Your task to perform on an android device: Add usb-c to usb-b to the cart on amazon, then select checkout. Image 0: 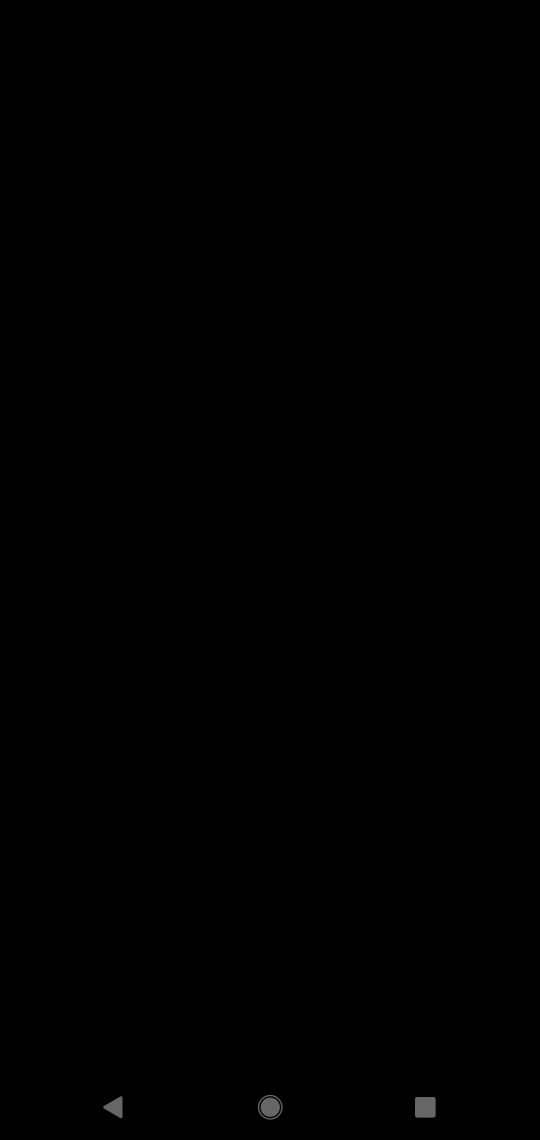
Step 0: press home button
Your task to perform on an android device: Add usb-c to usb-b to the cart on amazon, then select checkout. Image 1: 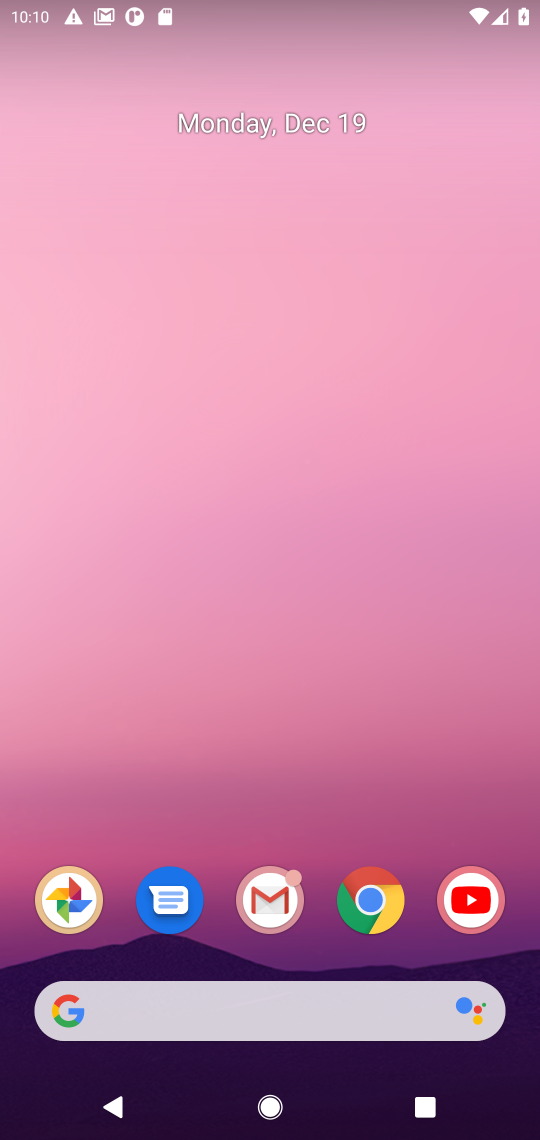
Step 1: click (367, 902)
Your task to perform on an android device: Add usb-c to usb-b to the cart on amazon, then select checkout. Image 2: 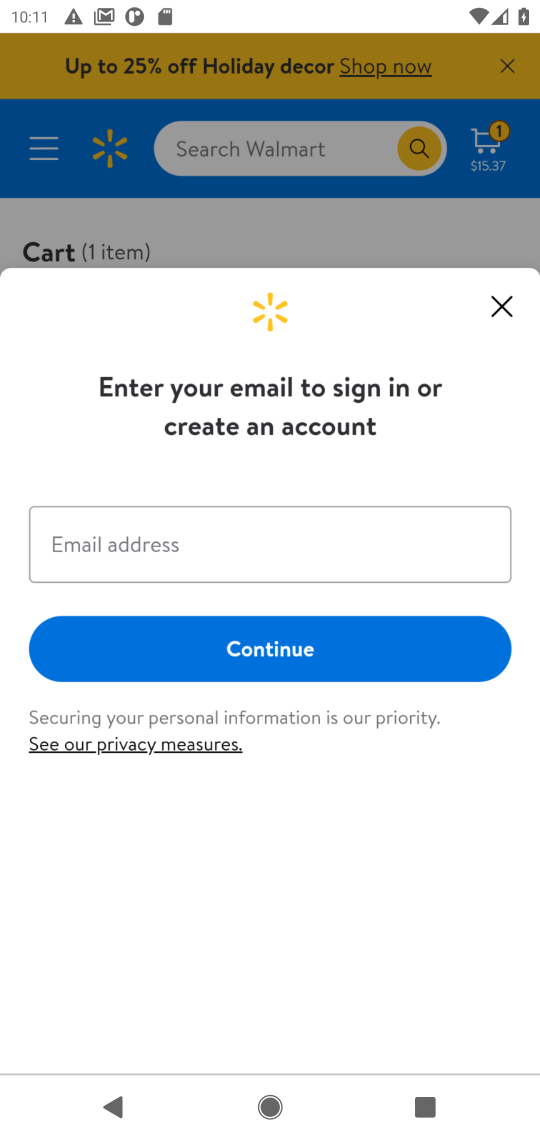
Step 2: click (495, 303)
Your task to perform on an android device: Add usb-c to usb-b to the cart on amazon, then select checkout. Image 3: 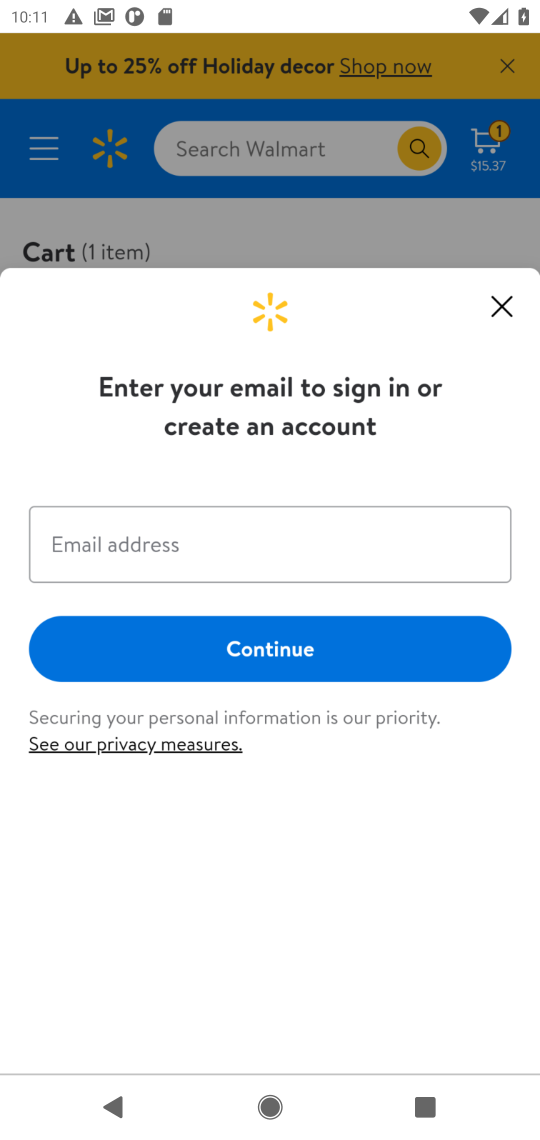
Step 3: click (493, 305)
Your task to perform on an android device: Add usb-c to usb-b to the cart on amazon, then select checkout. Image 4: 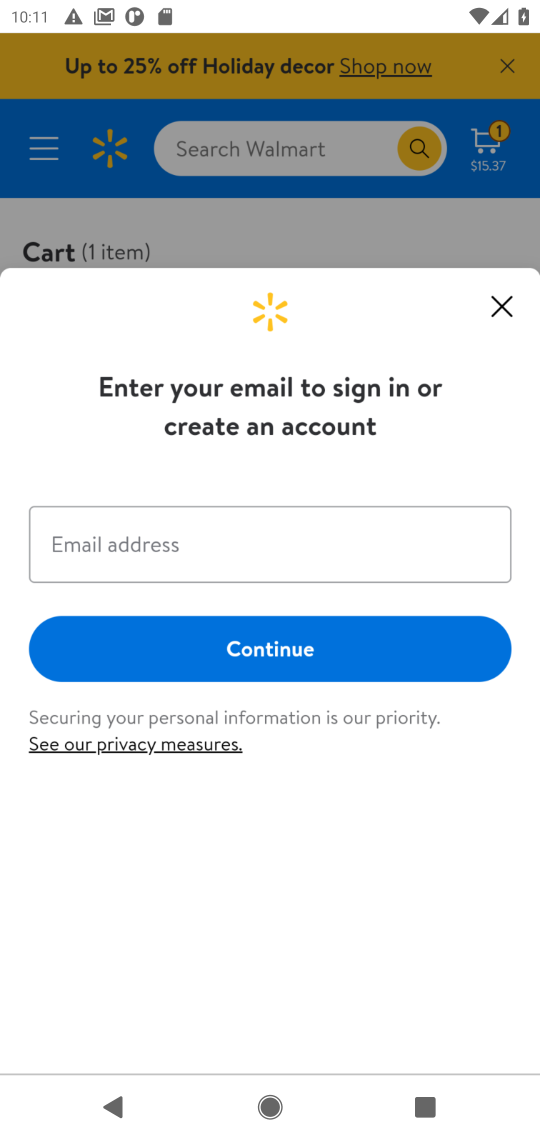
Step 4: click (504, 311)
Your task to perform on an android device: Add usb-c to usb-b to the cart on amazon, then select checkout. Image 5: 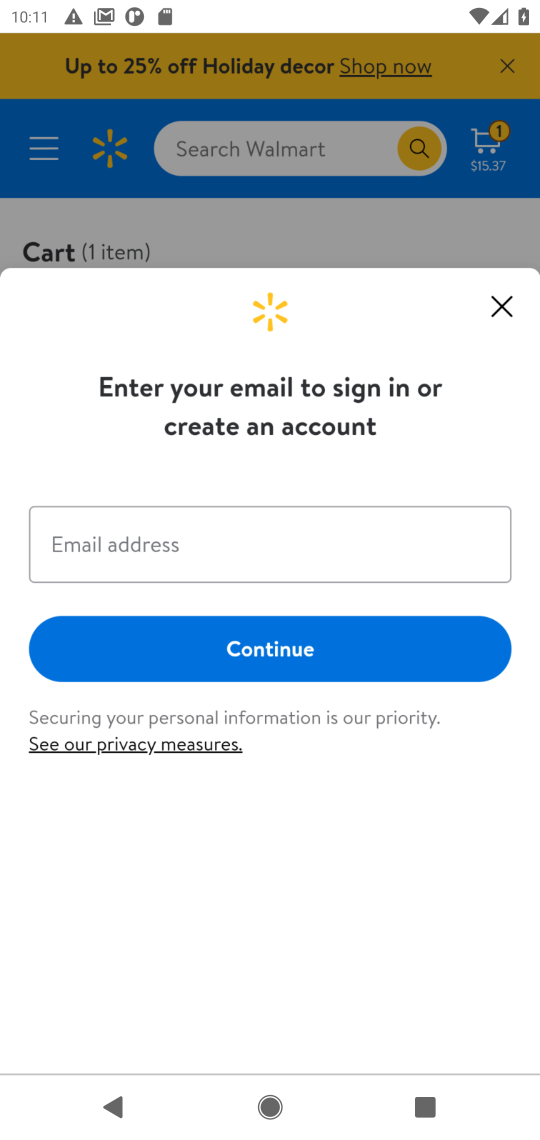
Step 5: click (504, 311)
Your task to perform on an android device: Add usb-c to usb-b to the cart on amazon, then select checkout. Image 6: 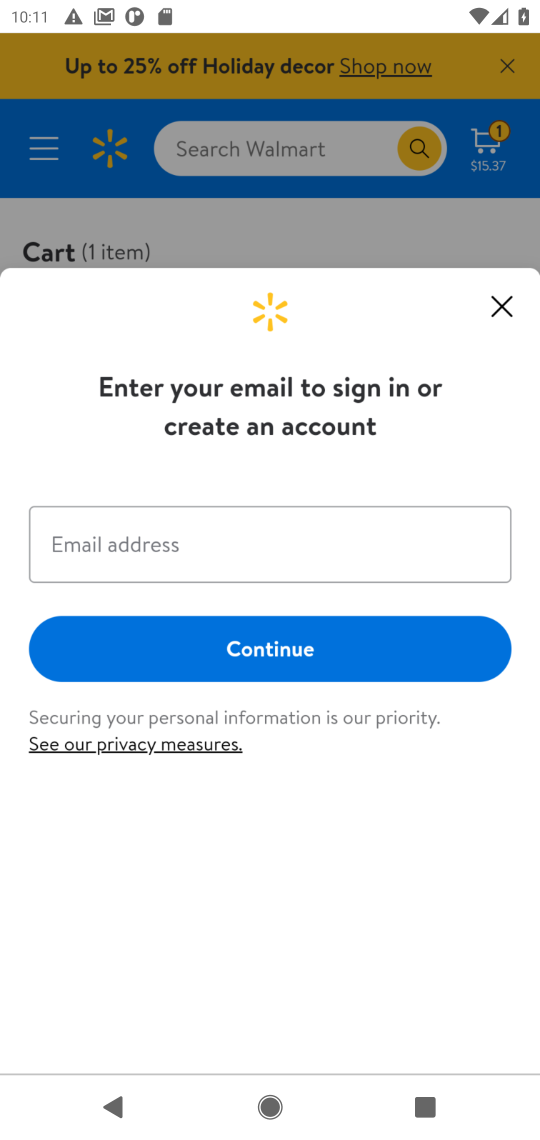
Step 6: click (504, 311)
Your task to perform on an android device: Add usb-c to usb-b to the cart on amazon, then select checkout. Image 7: 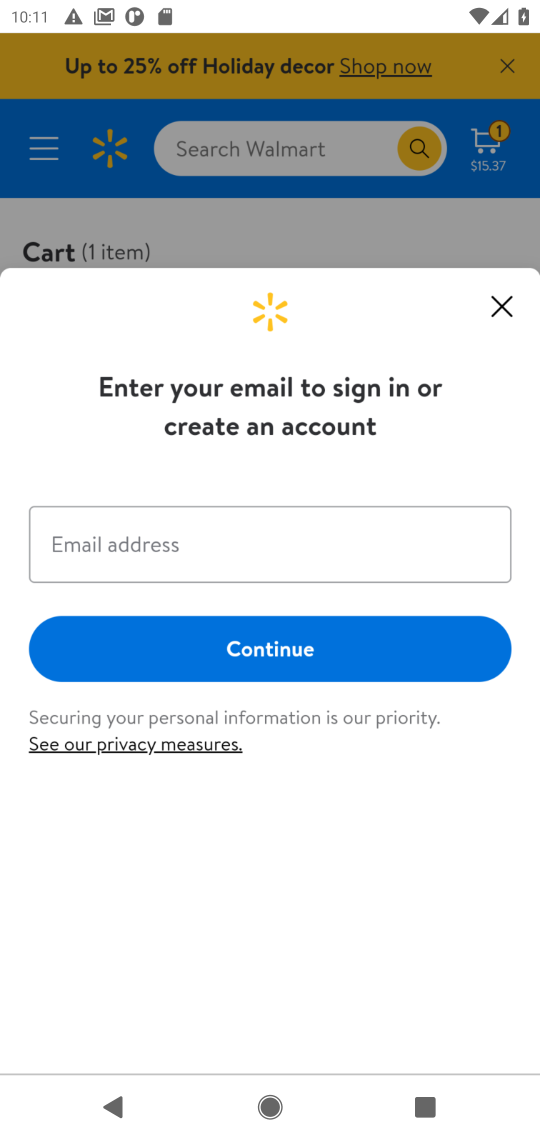
Step 7: click (495, 311)
Your task to perform on an android device: Add usb-c to usb-b to the cart on amazon, then select checkout. Image 8: 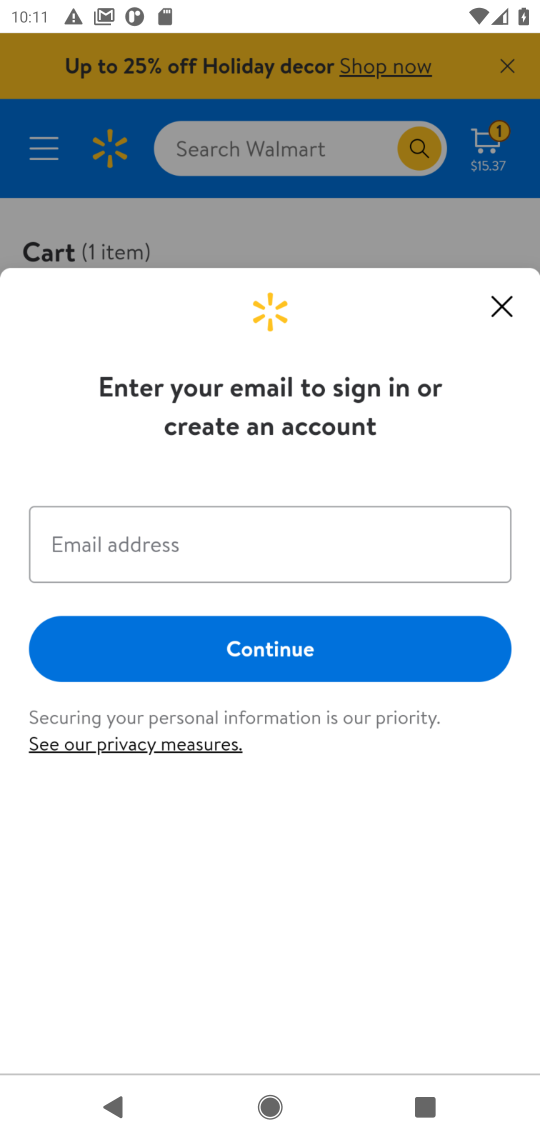
Step 8: click (501, 300)
Your task to perform on an android device: Add usb-c to usb-b to the cart on amazon, then select checkout. Image 9: 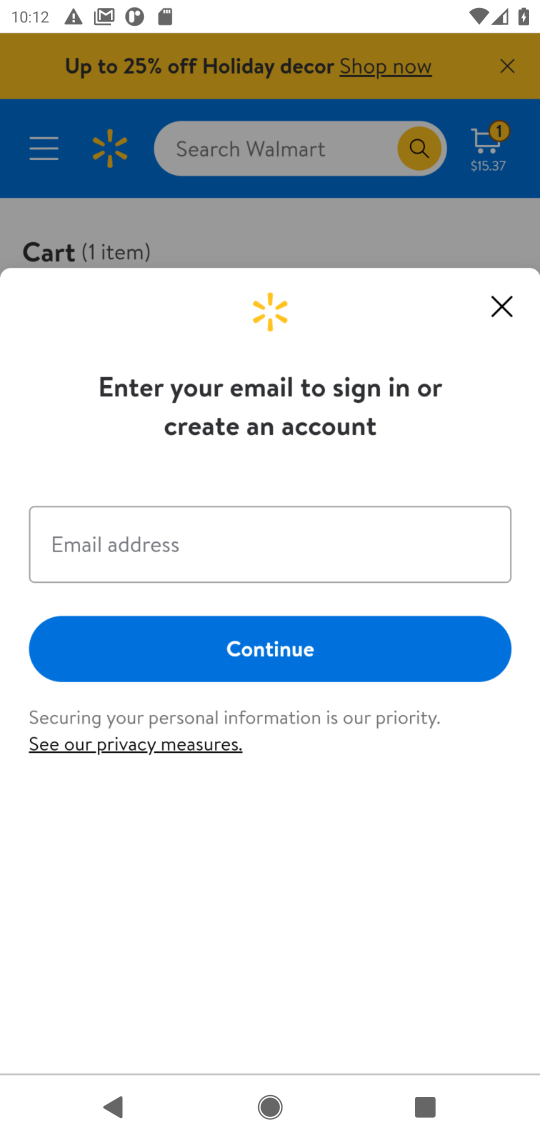
Step 9: click (383, 222)
Your task to perform on an android device: Add usb-c to usb-b to the cart on amazon, then select checkout. Image 10: 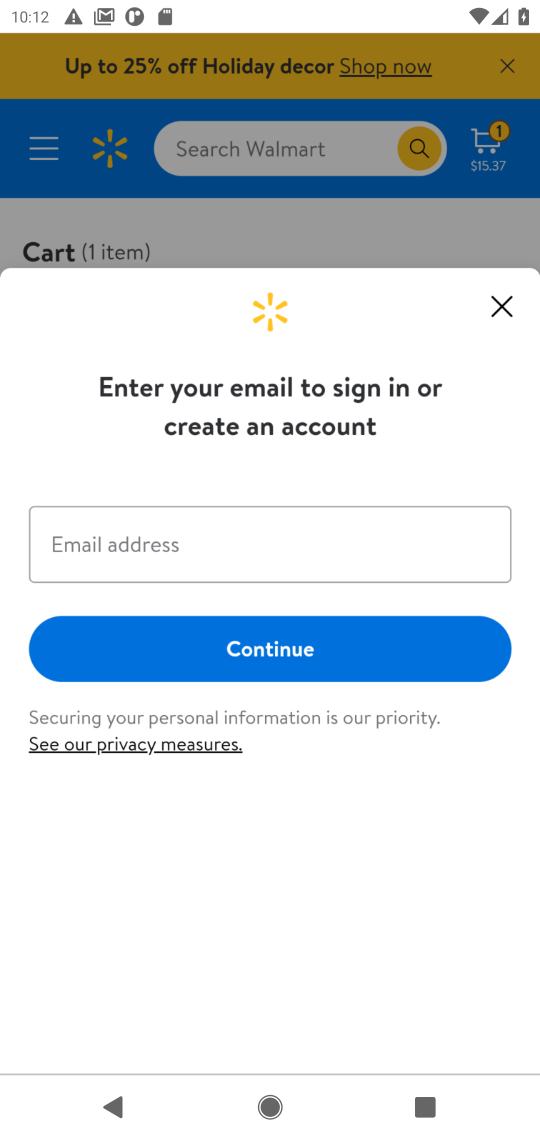
Step 10: press home button
Your task to perform on an android device: Add usb-c to usb-b to the cart on amazon, then select checkout. Image 11: 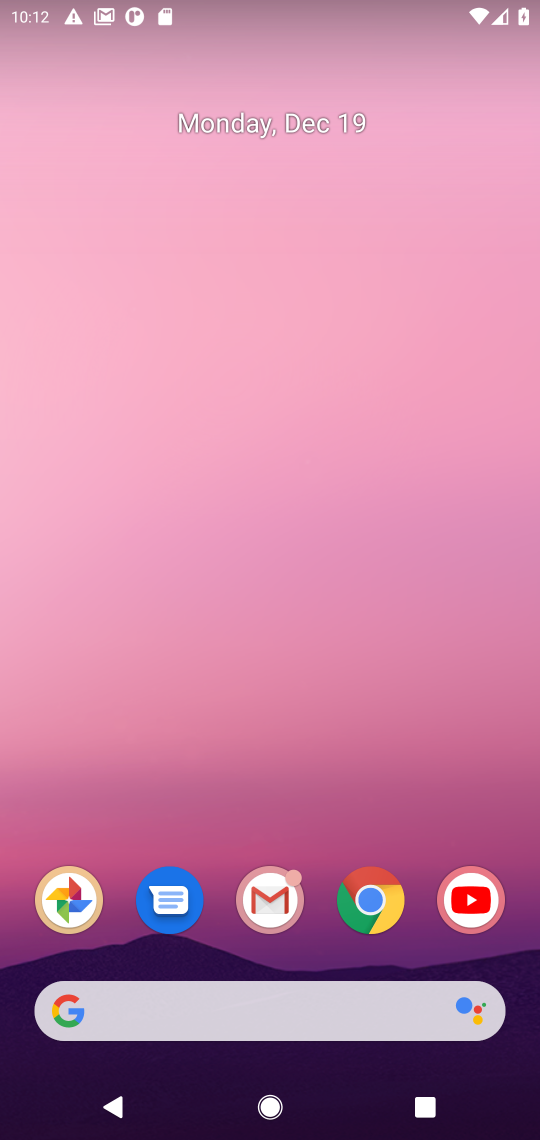
Step 11: click (368, 903)
Your task to perform on an android device: Add usb-c to usb-b to the cart on amazon, then select checkout. Image 12: 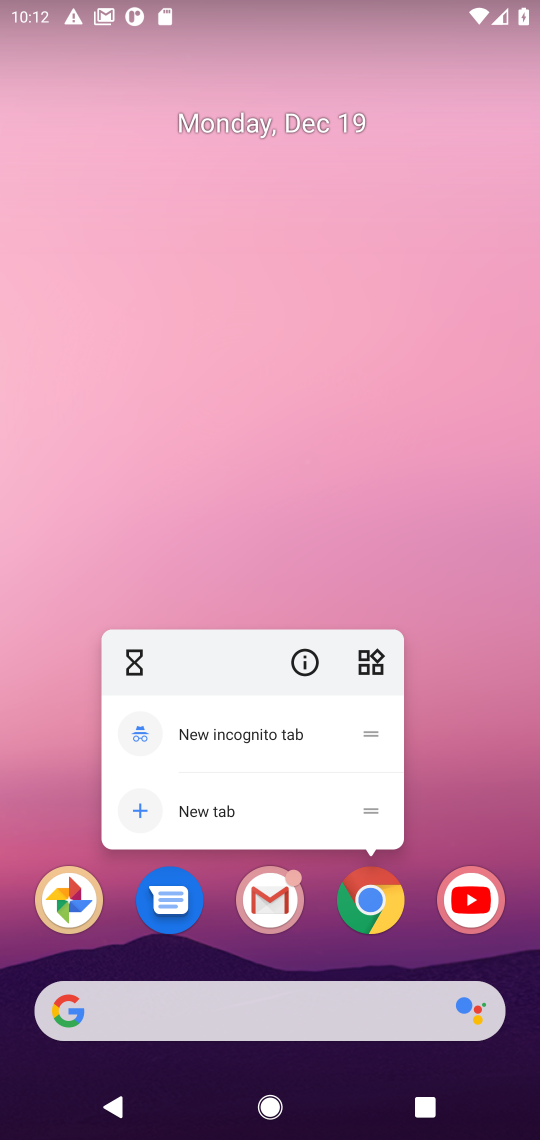
Step 12: click (368, 903)
Your task to perform on an android device: Add usb-c to usb-b to the cart on amazon, then select checkout. Image 13: 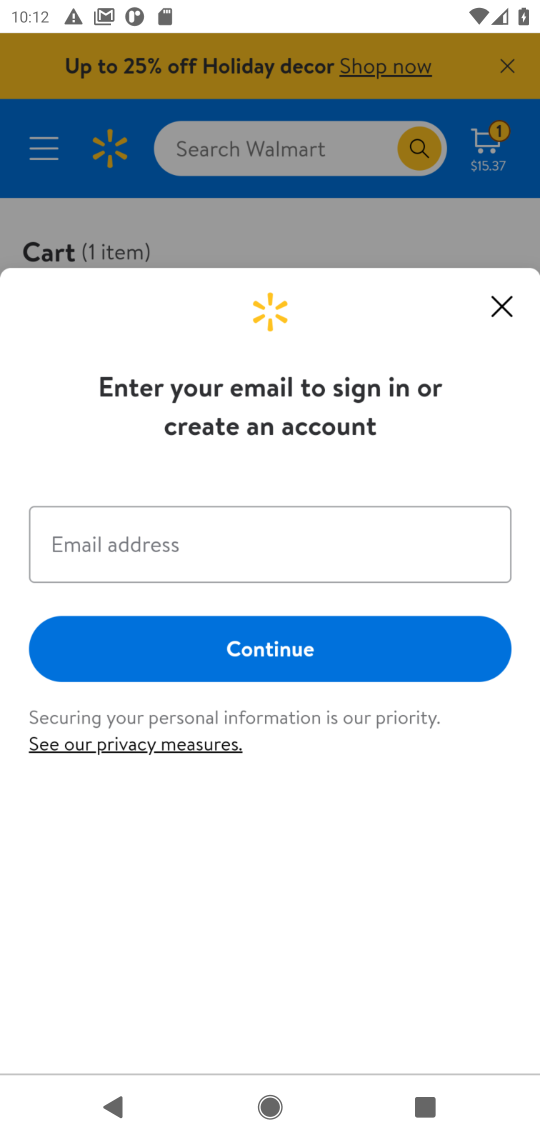
Step 13: click (496, 306)
Your task to perform on an android device: Add usb-c to usb-b to the cart on amazon, then select checkout. Image 14: 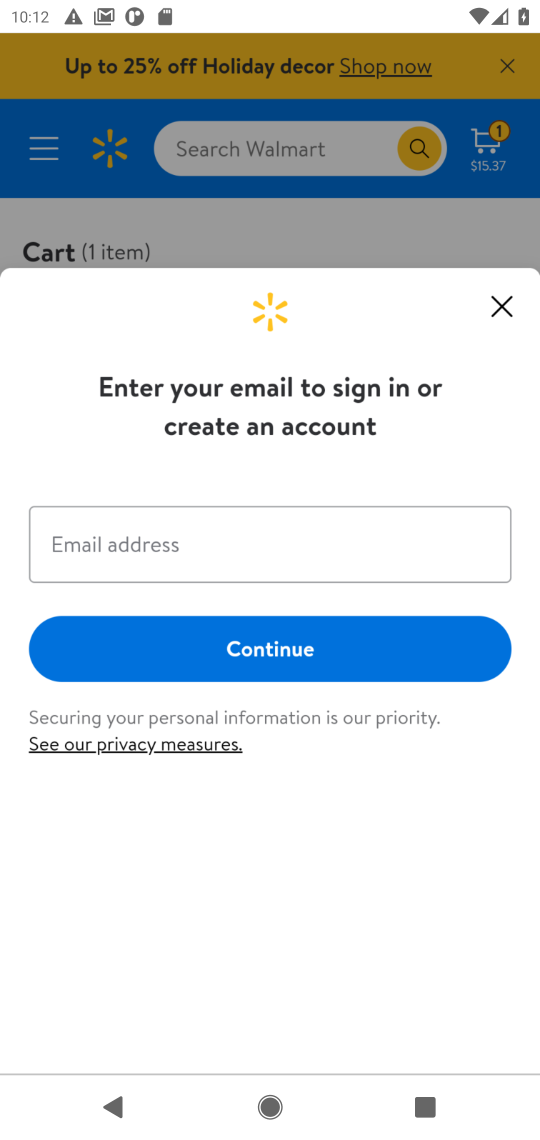
Step 14: press home button
Your task to perform on an android device: Add usb-c to usb-b to the cart on amazon, then select checkout. Image 15: 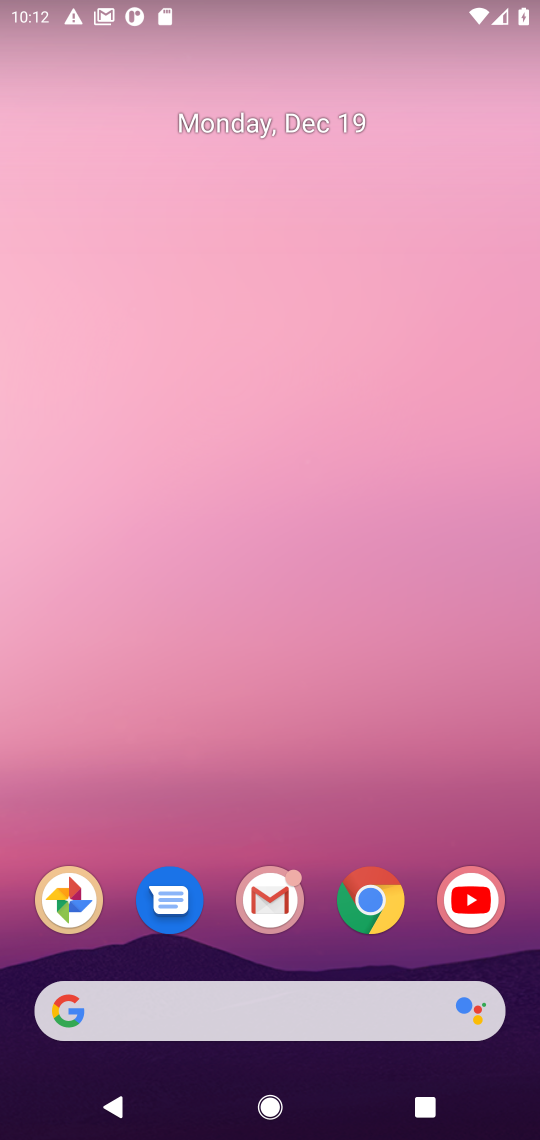
Step 15: click (75, 1011)
Your task to perform on an android device: Add usb-c to usb-b to the cart on amazon, then select checkout. Image 16: 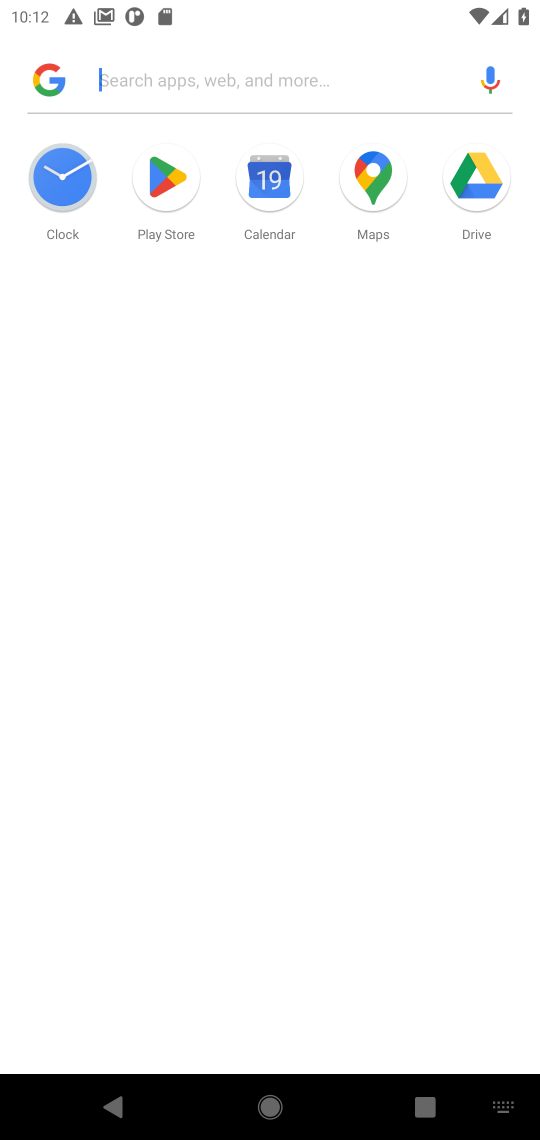
Step 16: type "amazon"
Your task to perform on an android device: Add usb-c to usb-b to the cart on amazon, then select checkout. Image 17: 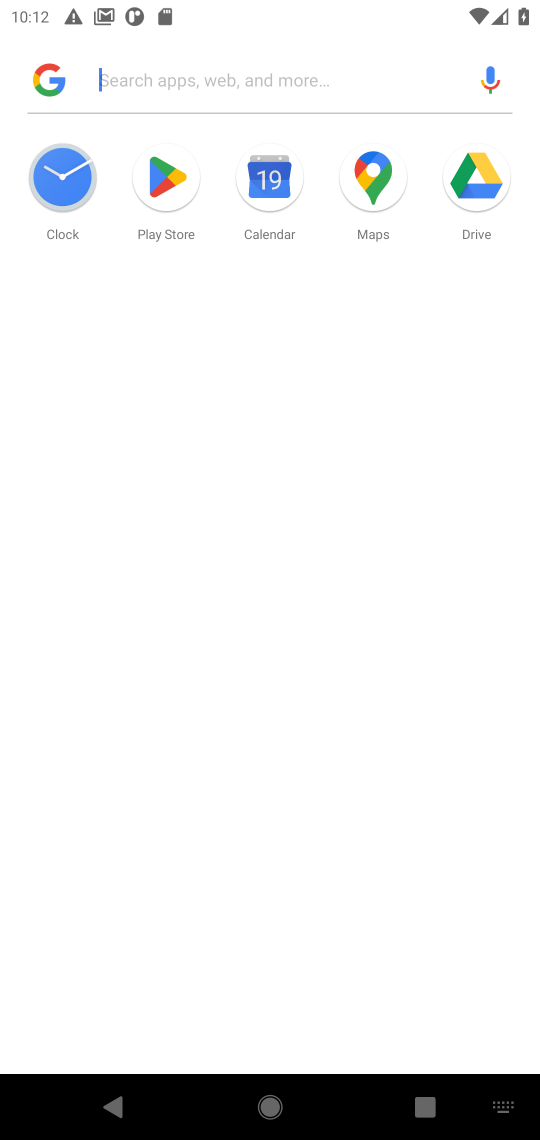
Step 17: click (275, 94)
Your task to perform on an android device: Add usb-c to usb-b to the cart on amazon, then select checkout. Image 18: 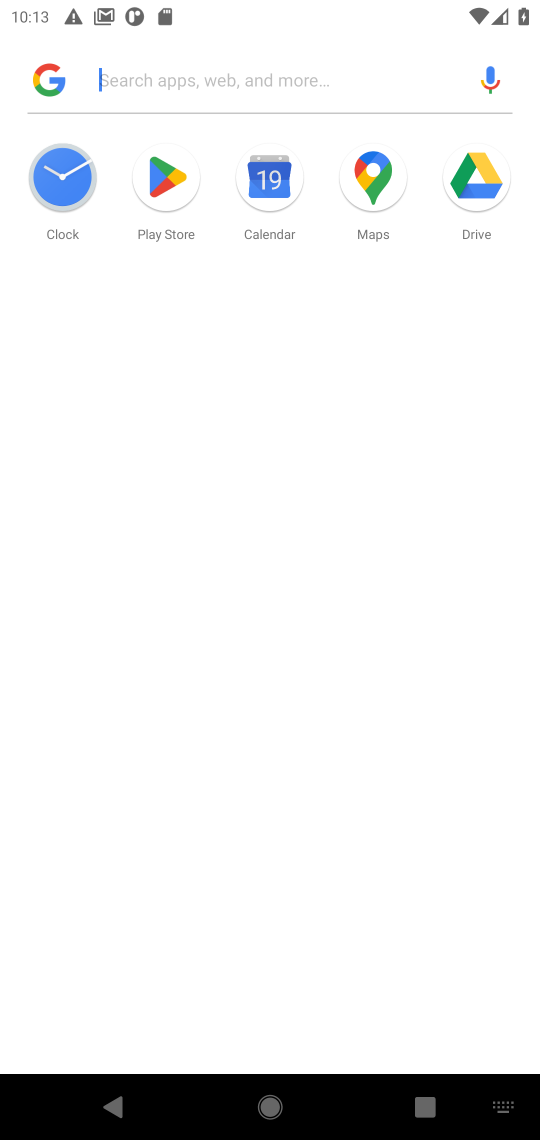
Step 18: type "amazon"
Your task to perform on an android device: Add usb-c to usb-b to the cart on amazon, then select checkout. Image 19: 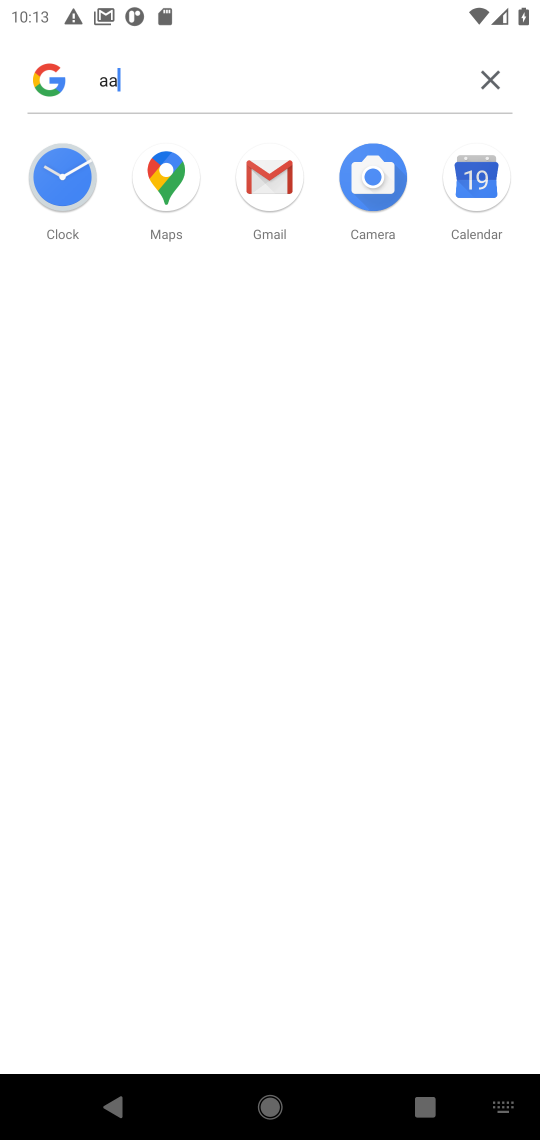
Step 19: task complete